Your task to perform on an android device: Show me popular games on the Play Store Image 0: 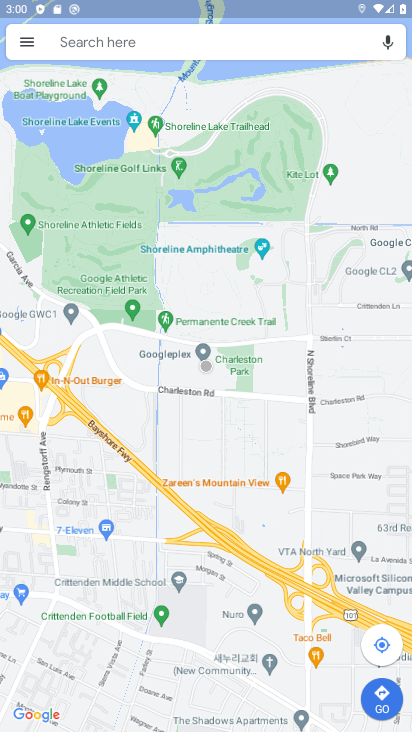
Step 0: press home button
Your task to perform on an android device: Show me popular games on the Play Store Image 1: 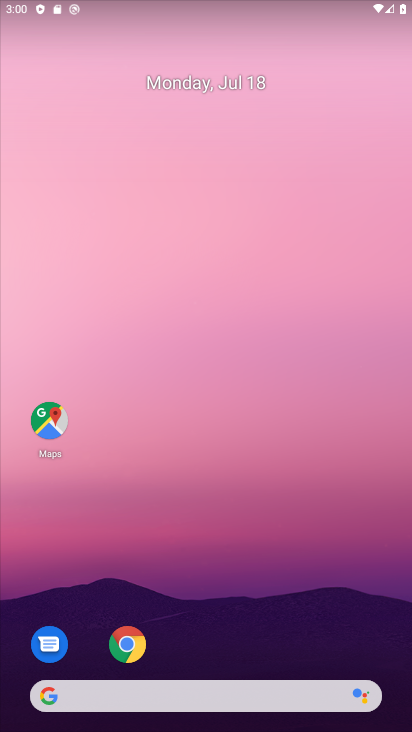
Step 1: drag from (247, 642) to (343, 145)
Your task to perform on an android device: Show me popular games on the Play Store Image 2: 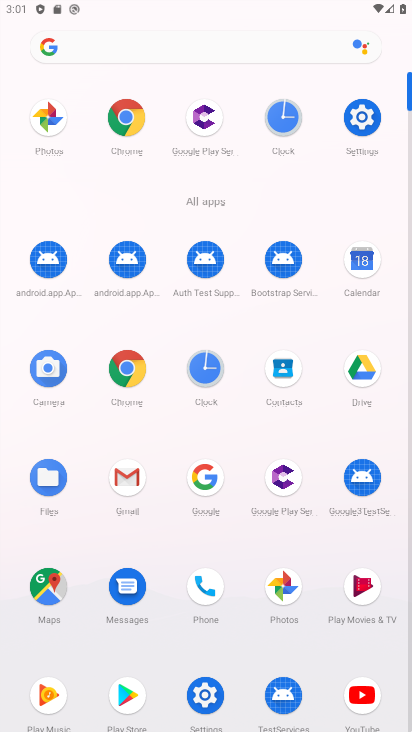
Step 2: click (116, 699)
Your task to perform on an android device: Show me popular games on the Play Store Image 3: 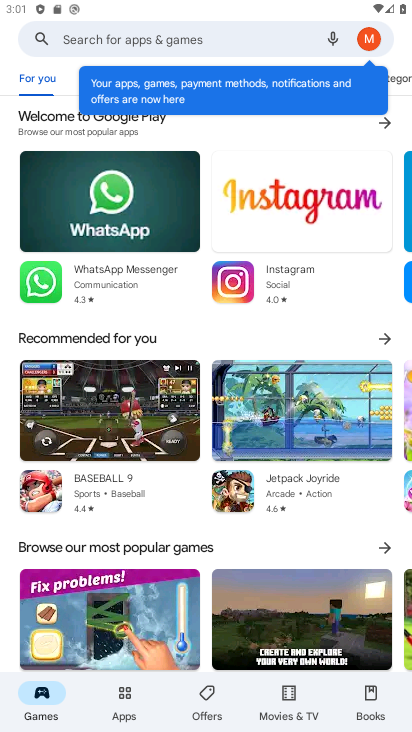
Step 3: click (52, 696)
Your task to perform on an android device: Show me popular games on the Play Store Image 4: 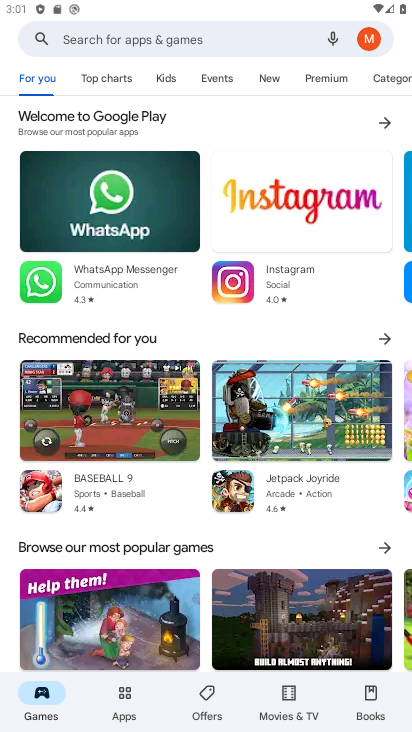
Step 4: click (395, 74)
Your task to perform on an android device: Show me popular games on the Play Store Image 5: 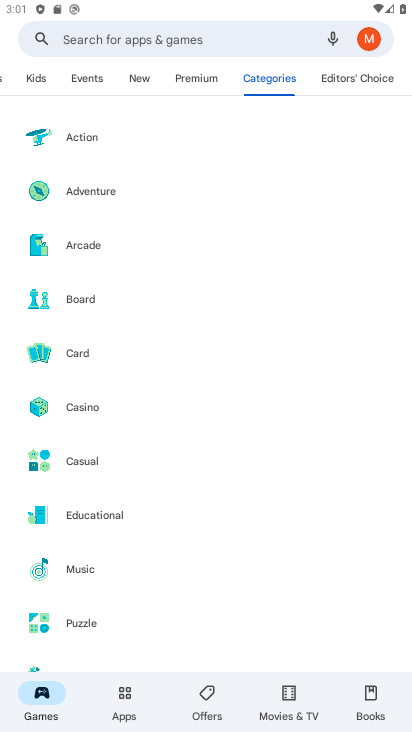
Step 5: task complete